Your task to perform on an android device: Clear all items from cart on amazon.com. Search for razer blade on amazon.com, select the first entry, and add it to the cart. Image 0: 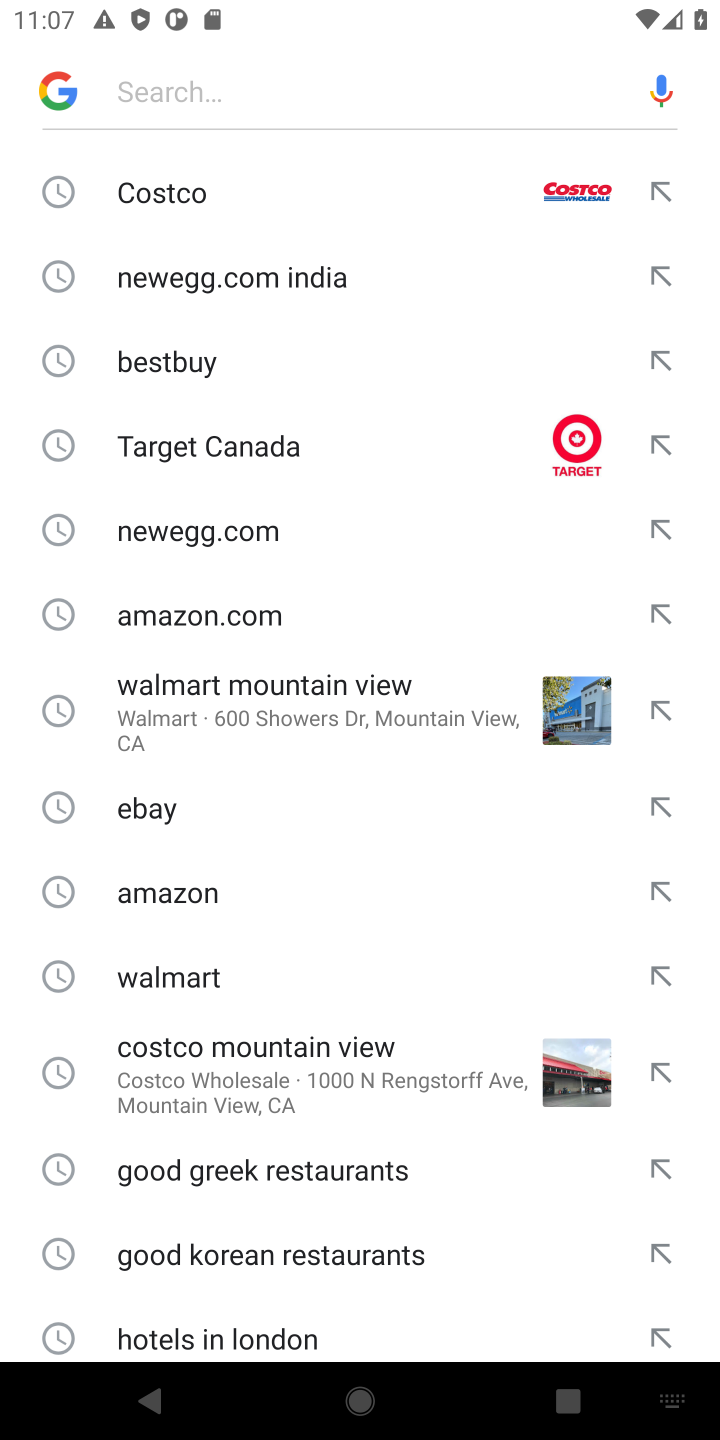
Step 0: press home button
Your task to perform on an android device: Clear all items from cart on amazon.com. Search for razer blade on amazon.com, select the first entry, and add it to the cart. Image 1: 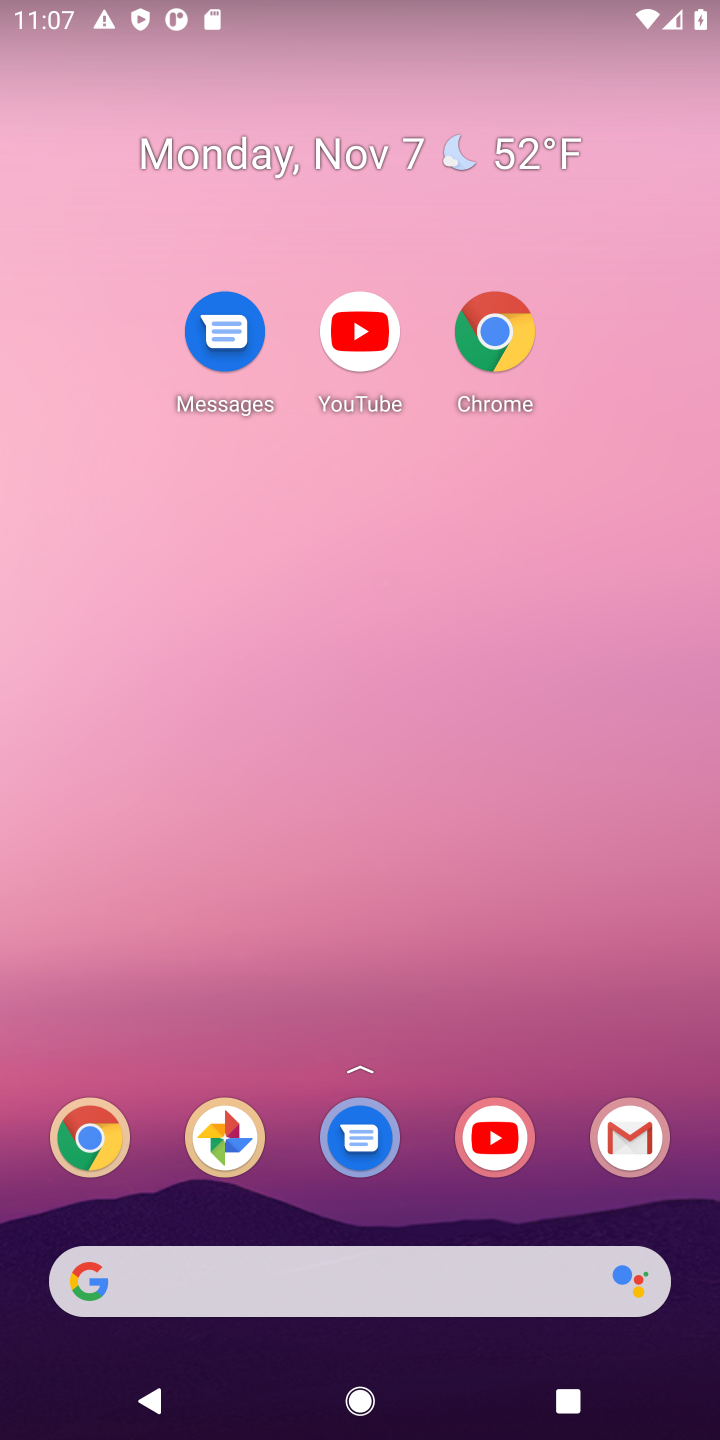
Step 1: drag from (377, 1069) to (416, 182)
Your task to perform on an android device: Clear all items from cart on amazon.com. Search for razer blade on amazon.com, select the first entry, and add it to the cart. Image 2: 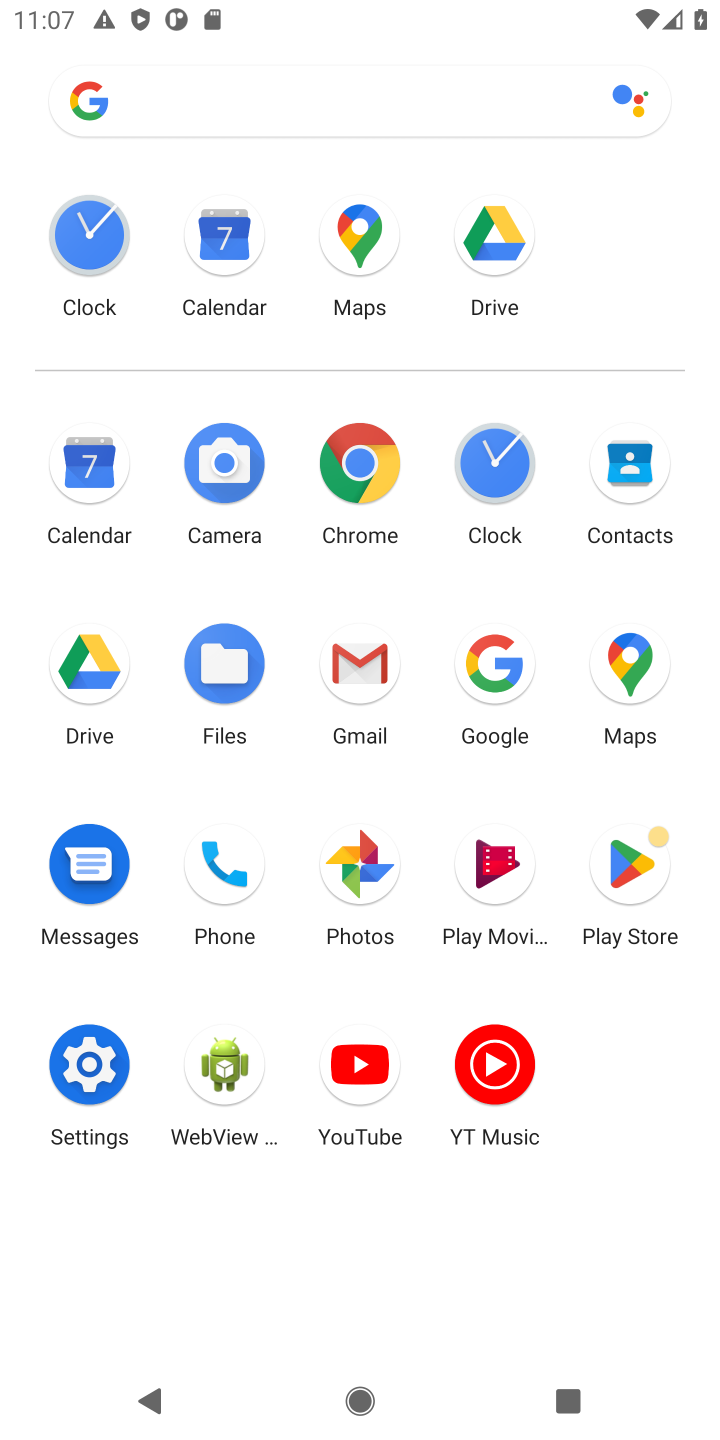
Step 2: click (364, 465)
Your task to perform on an android device: Clear all items from cart on amazon.com. Search for razer blade on amazon.com, select the first entry, and add it to the cart. Image 3: 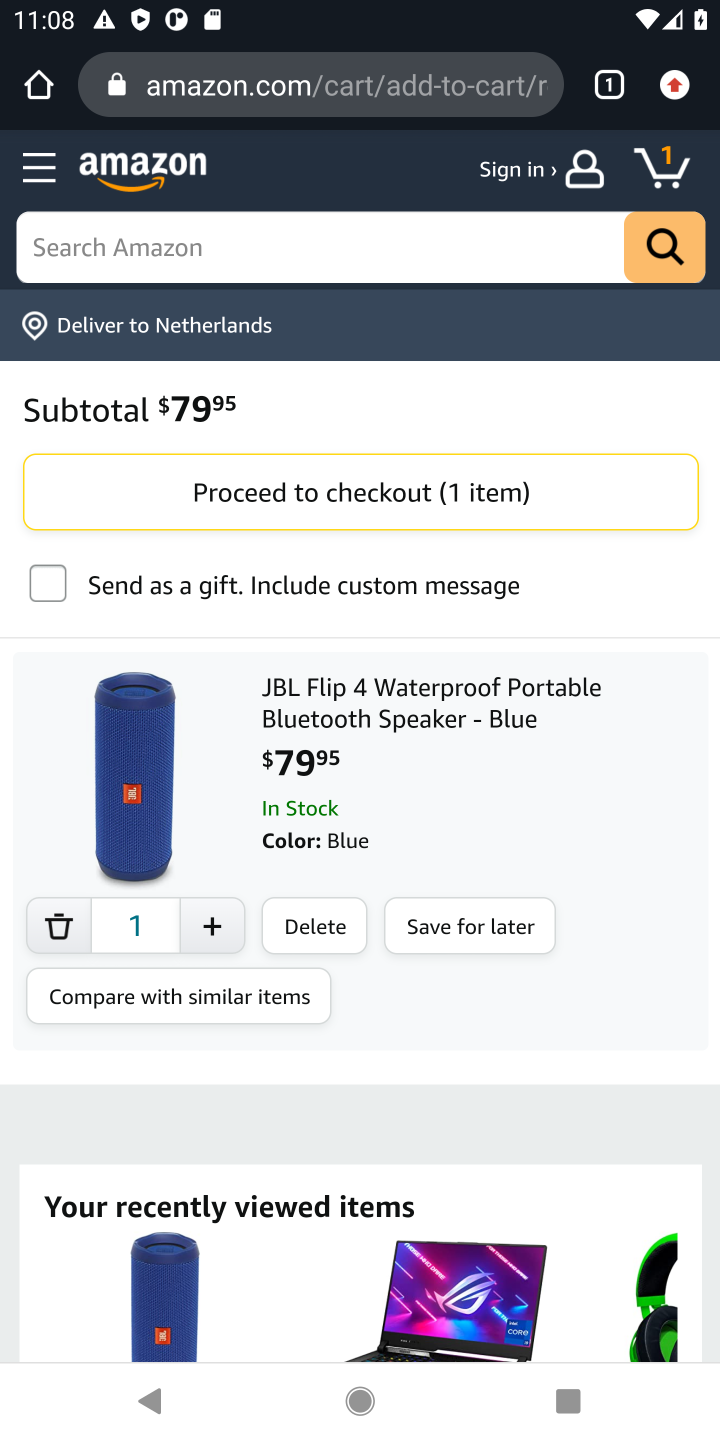
Step 3: click (669, 166)
Your task to perform on an android device: Clear all items from cart on amazon.com. Search for razer blade on amazon.com, select the first entry, and add it to the cart. Image 4: 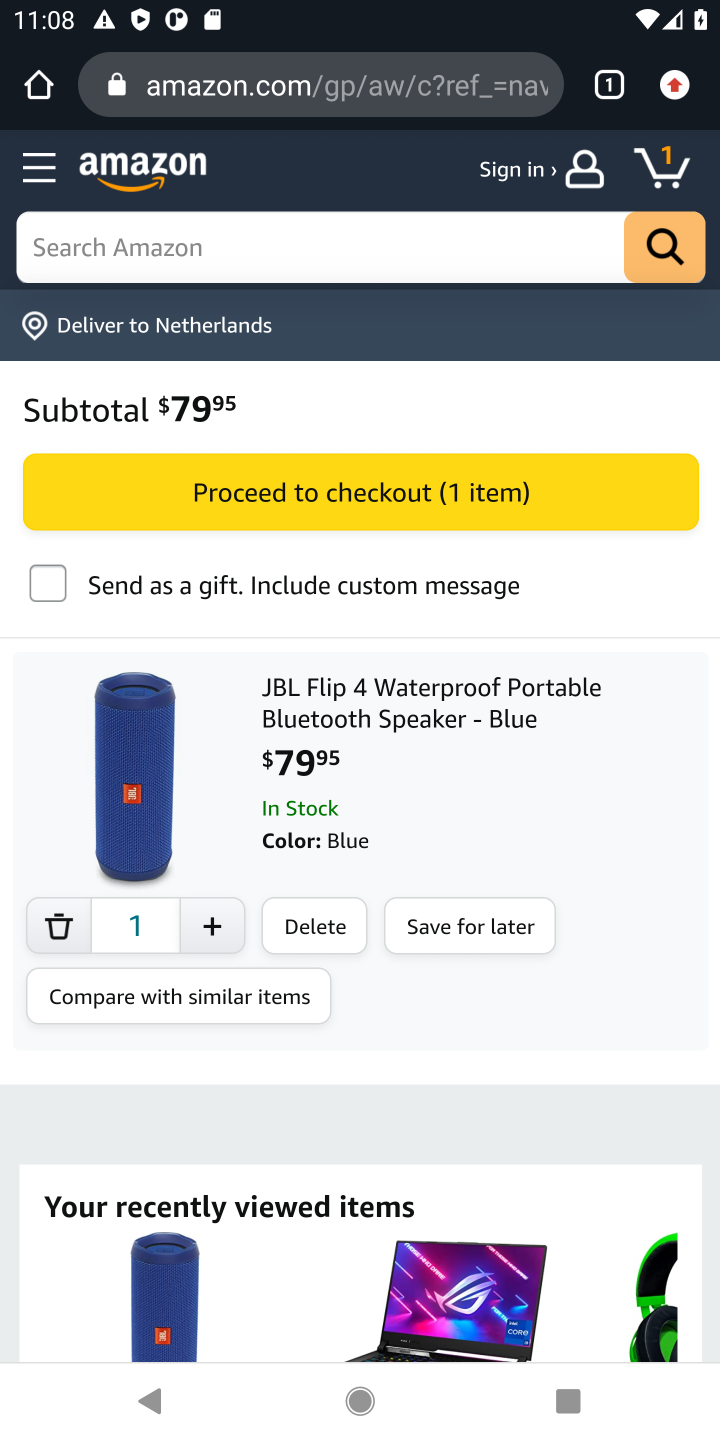
Step 4: click (677, 161)
Your task to perform on an android device: Clear all items from cart on amazon.com. Search for razer blade on amazon.com, select the first entry, and add it to the cart. Image 5: 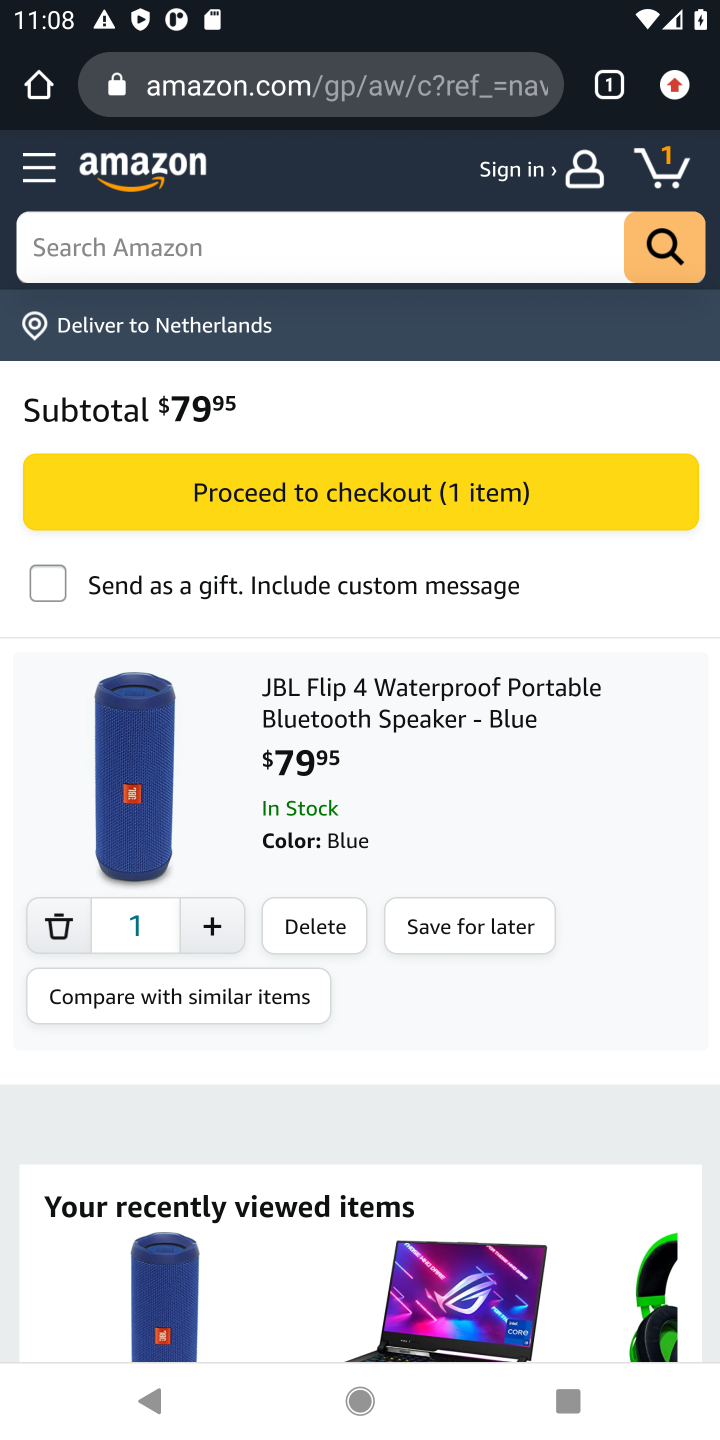
Step 5: click (310, 914)
Your task to perform on an android device: Clear all items from cart on amazon.com. Search for razer blade on amazon.com, select the first entry, and add it to the cart. Image 6: 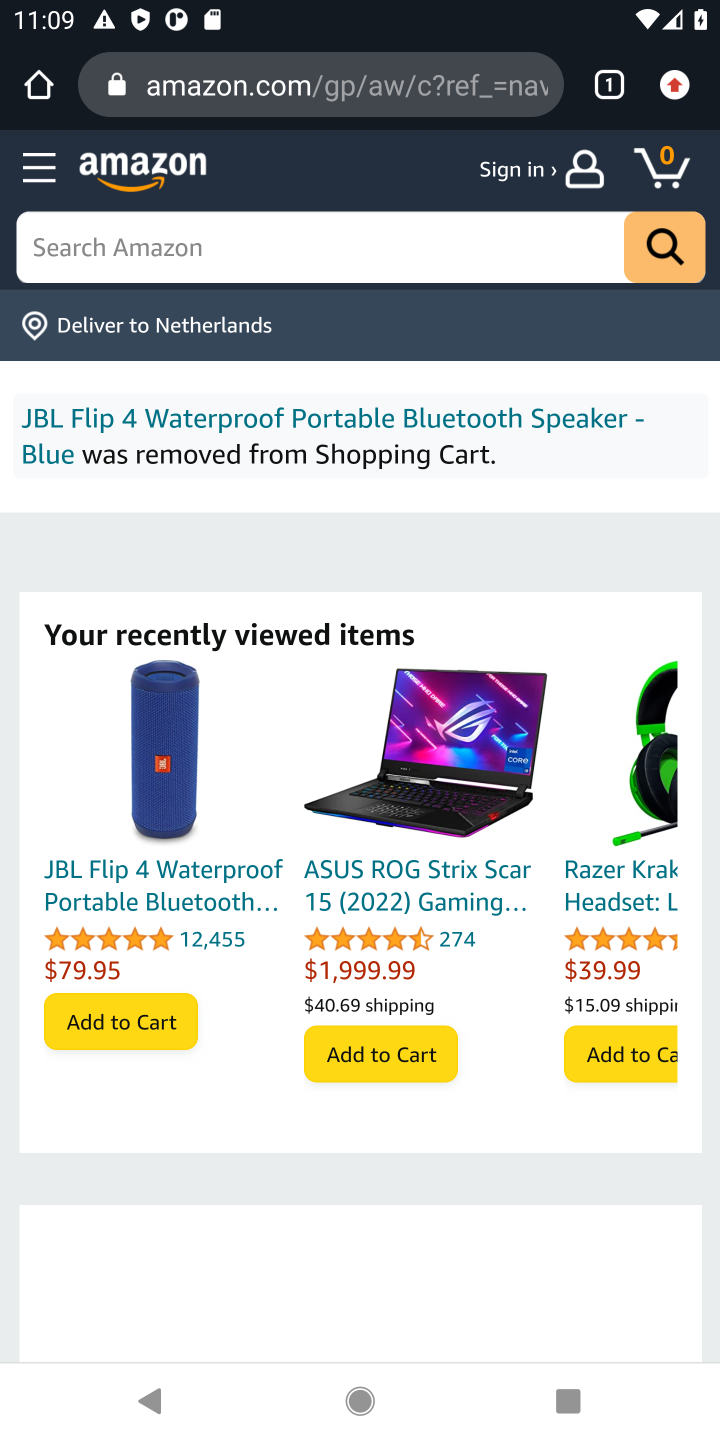
Step 6: click (298, 257)
Your task to perform on an android device: Clear all items from cart on amazon.com. Search for razer blade on amazon.com, select the first entry, and add it to the cart. Image 7: 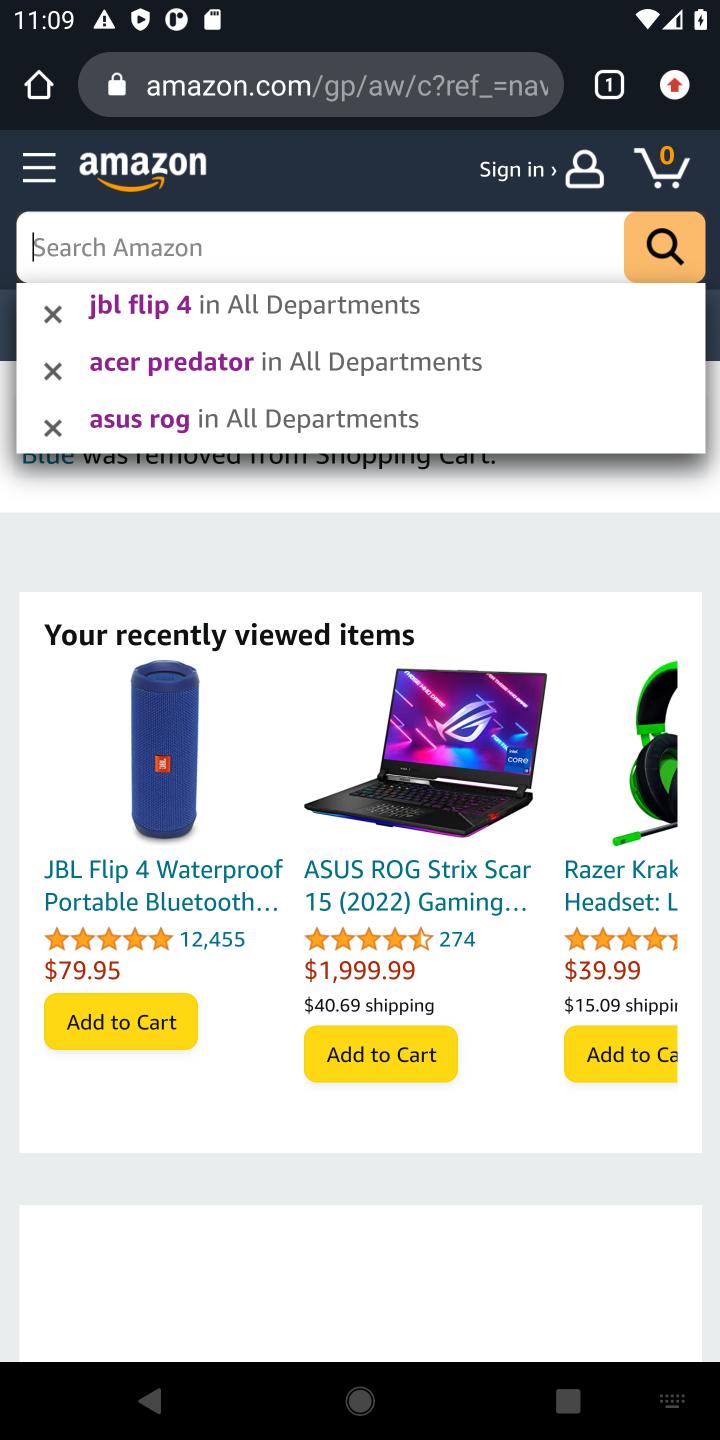
Step 7: press enter
Your task to perform on an android device: Clear all items from cart on amazon.com. Search for razer blade on amazon.com, select the first entry, and add it to the cart. Image 8: 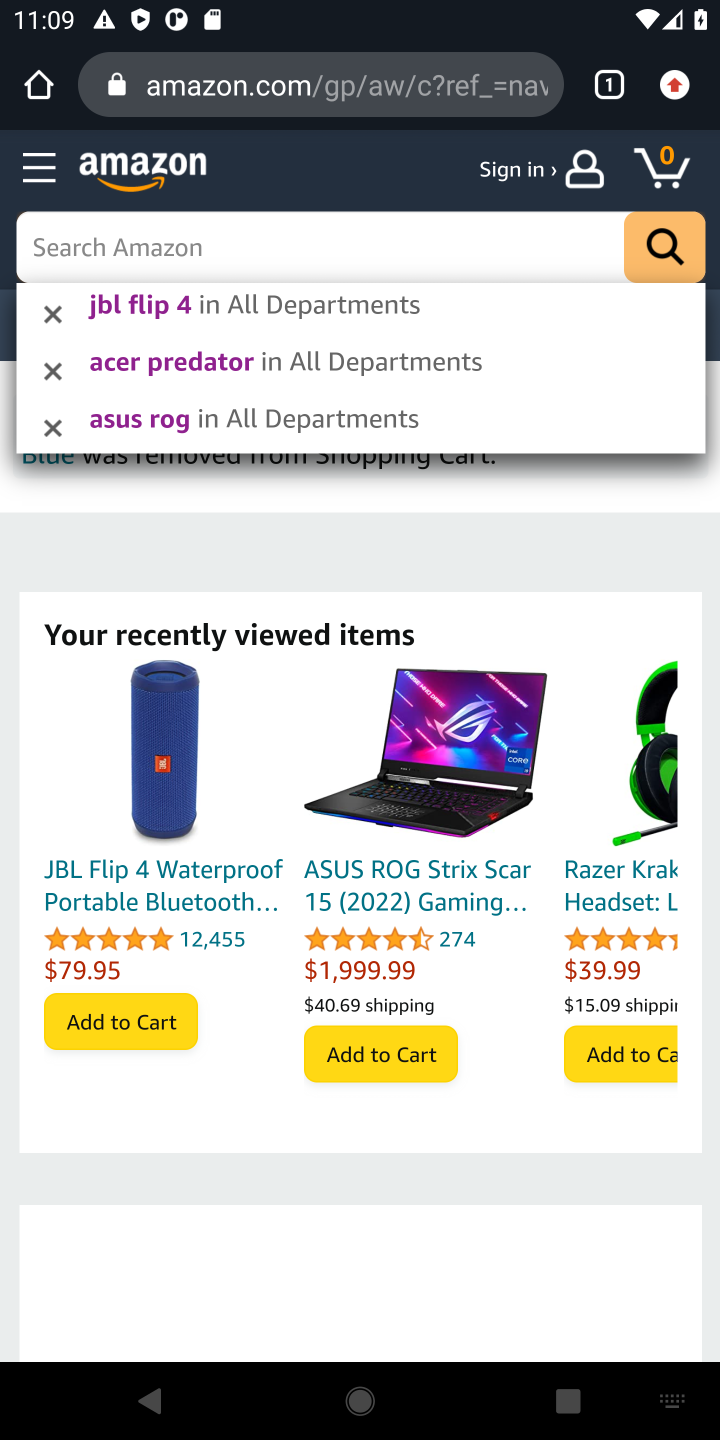
Step 8: type "razer blade"
Your task to perform on an android device: Clear all items from cart on amazon.com. Search for razer blade on amazon.com, select the first entry, and add it to the cart. Image 9: 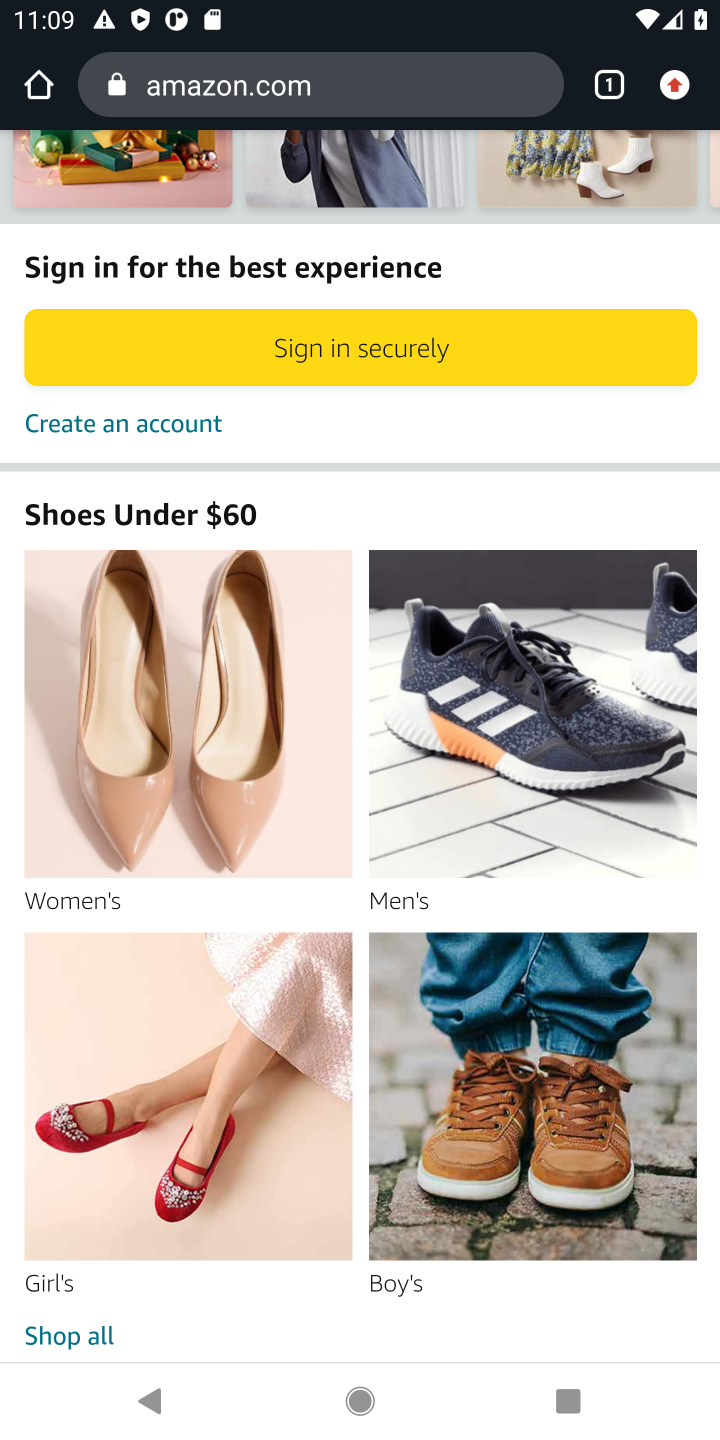
Step 9: press enter
Your task to perform on an android device: Clear all items from cart on amazon.com. Search for razer blade on amazon.com, select the first entry, and add it to the cart. Image 10: 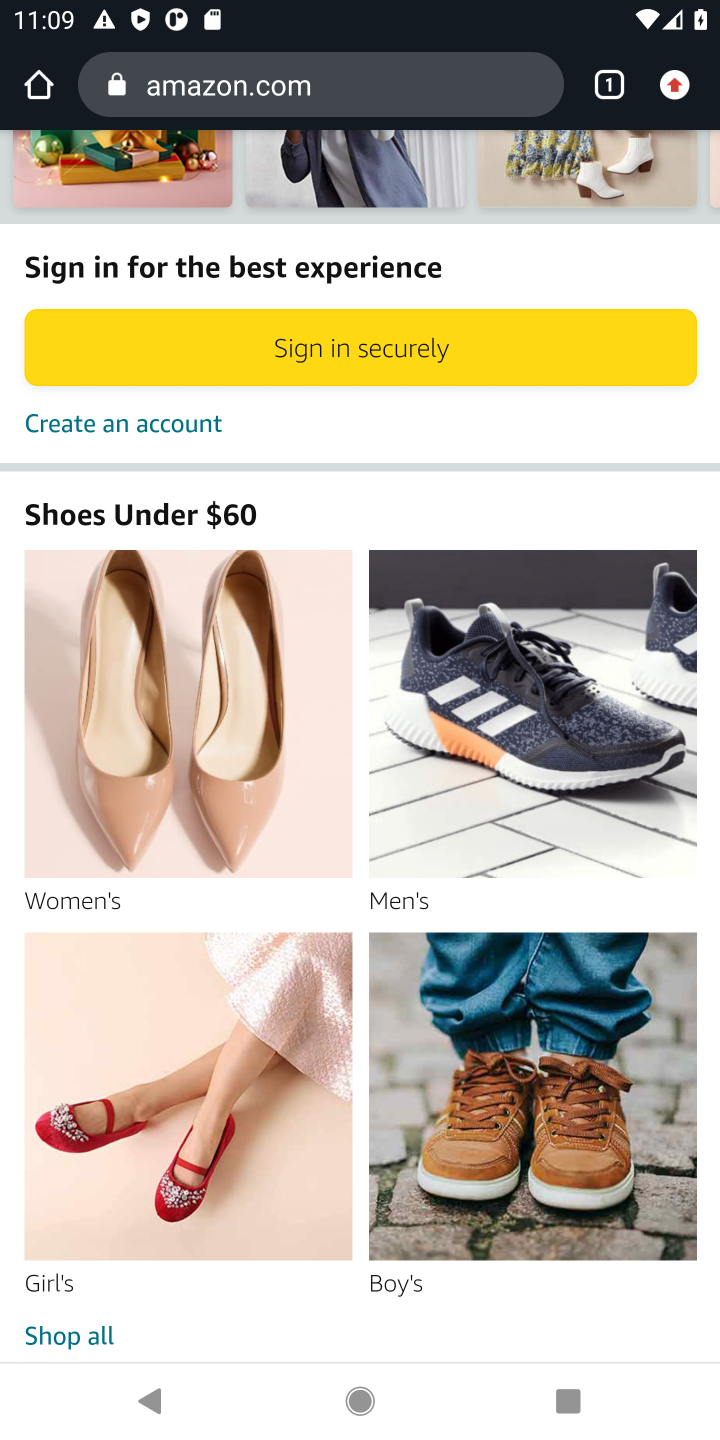
Step 10: drag from (481, 626) to (473, 1236)
Your task to perform on an android device: Clear all items from cart on amazon.com. Search for razer blade on amazon.com, select the first entry, and add it to the cart. Image 11: 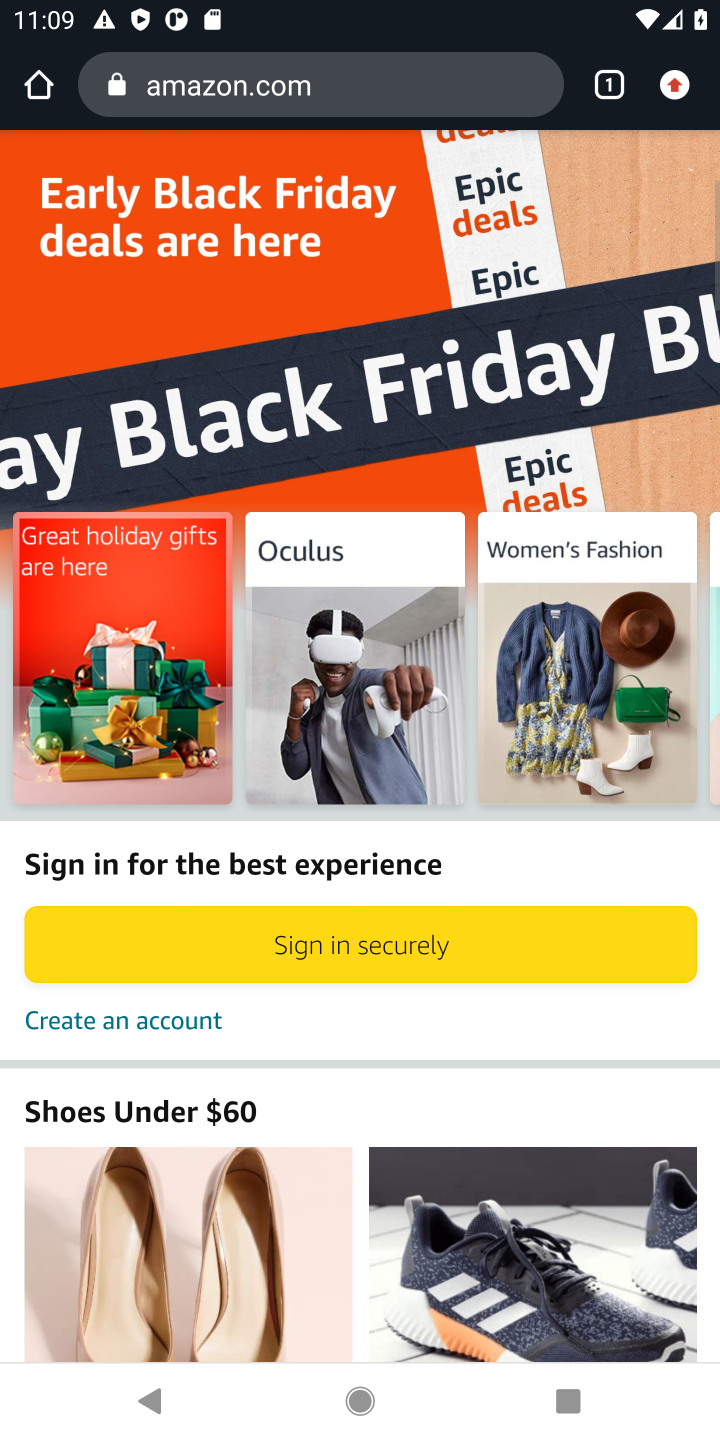
Step 11: drag from (412, 499) to (400, 1143)
Your task to perform on an android device: Clear all items from cart on amazon.com. Search for razer blade on amazon.com, select the first entry, and add it to the cart. Image 12: 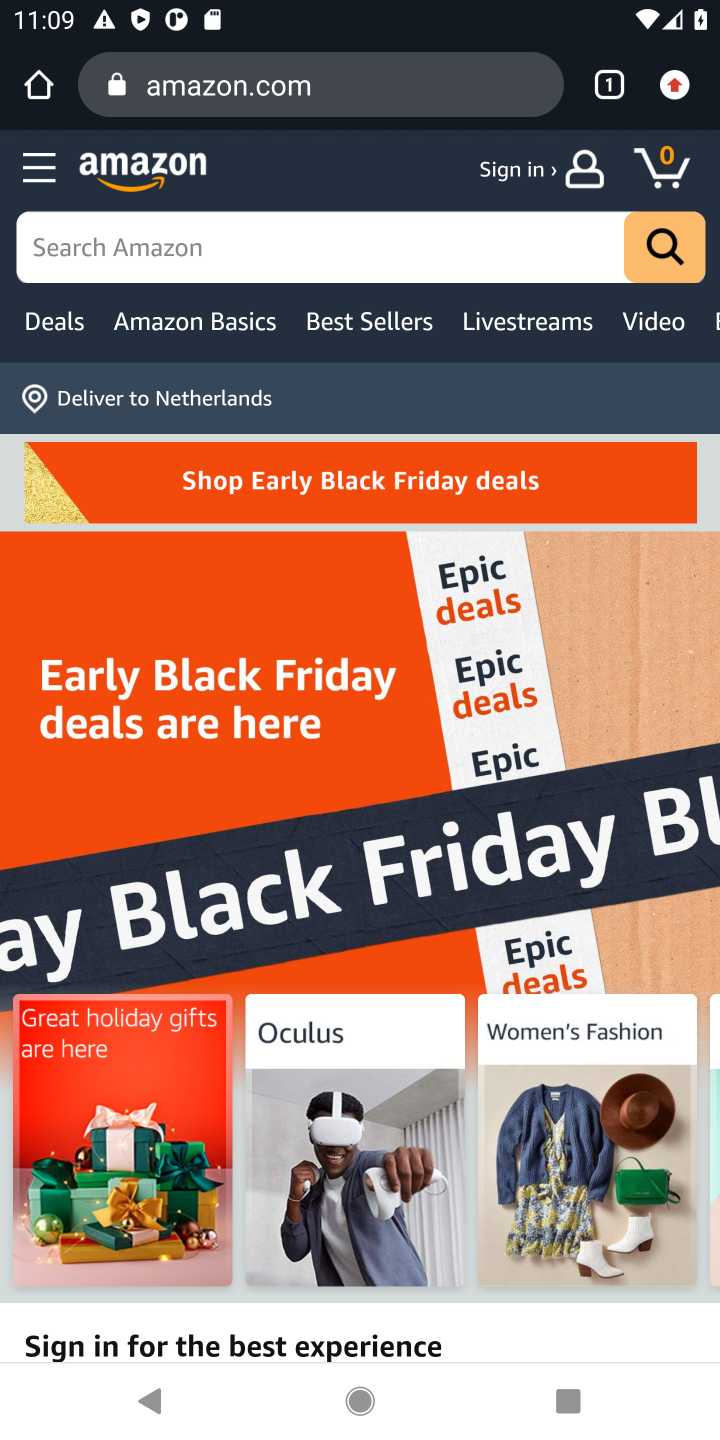
Step 12: click (413, 261)
Your task to perform on an android device: Clear all items from cart on amazon.com. Search for razer blade on amazon.com, select the first entry, and add it to the cart. Image 13: 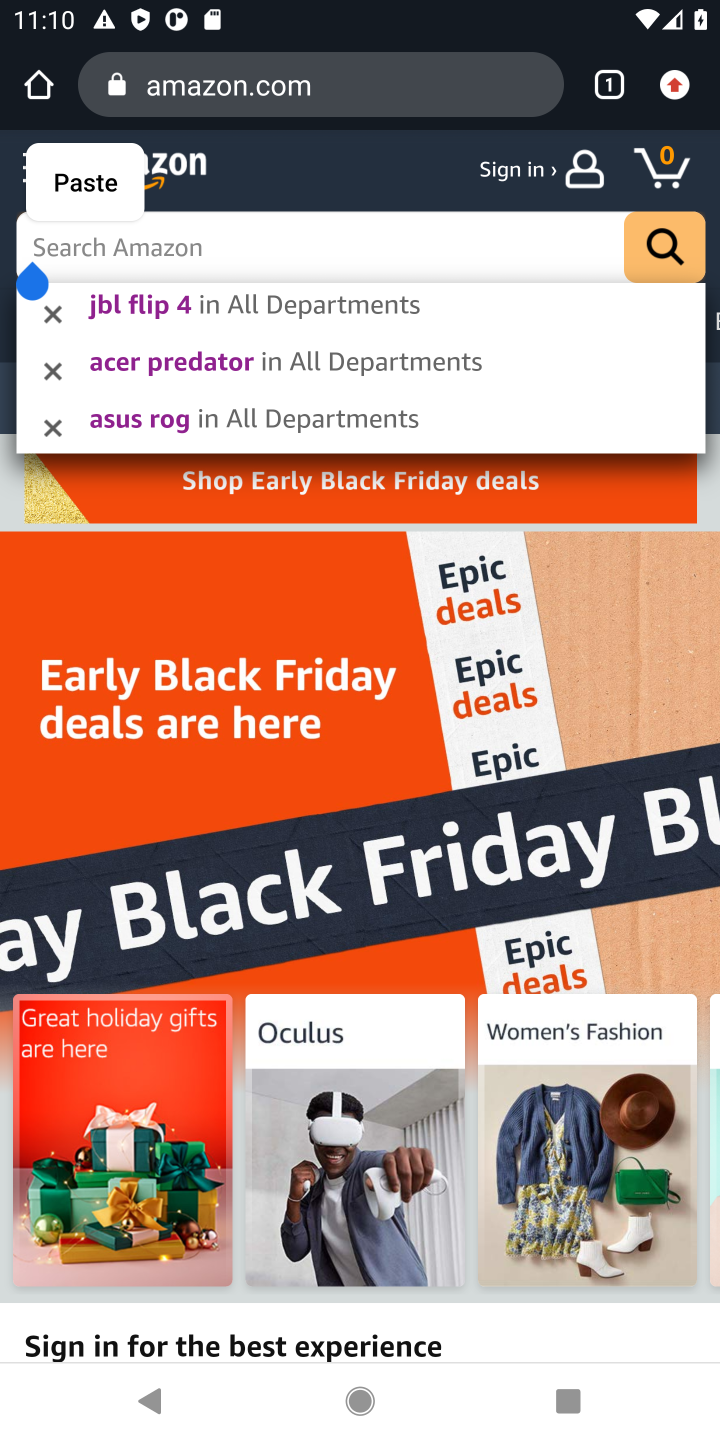
Step 13: type "razer blade"
Your task to perform on an android device: Clear all items from cart on amazon.com. Search for razer blade on amazon.com, select the first entry, and add it to the cart. Image 14: 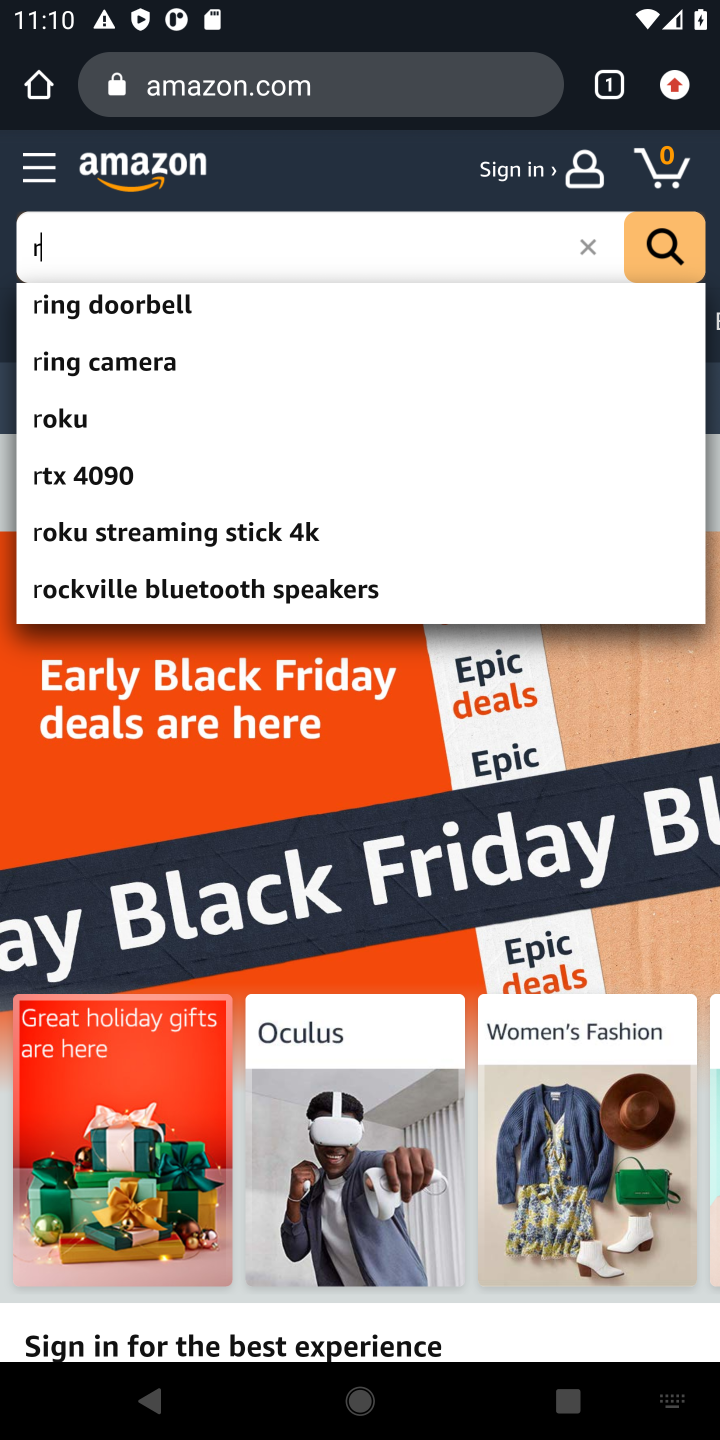
Step 14: press enter
Your task to perform on an android device: Clear all items from cart on amazon.com. Search for razer blade on amazon.com, select the first entry, and add it to the cart. Image 15: 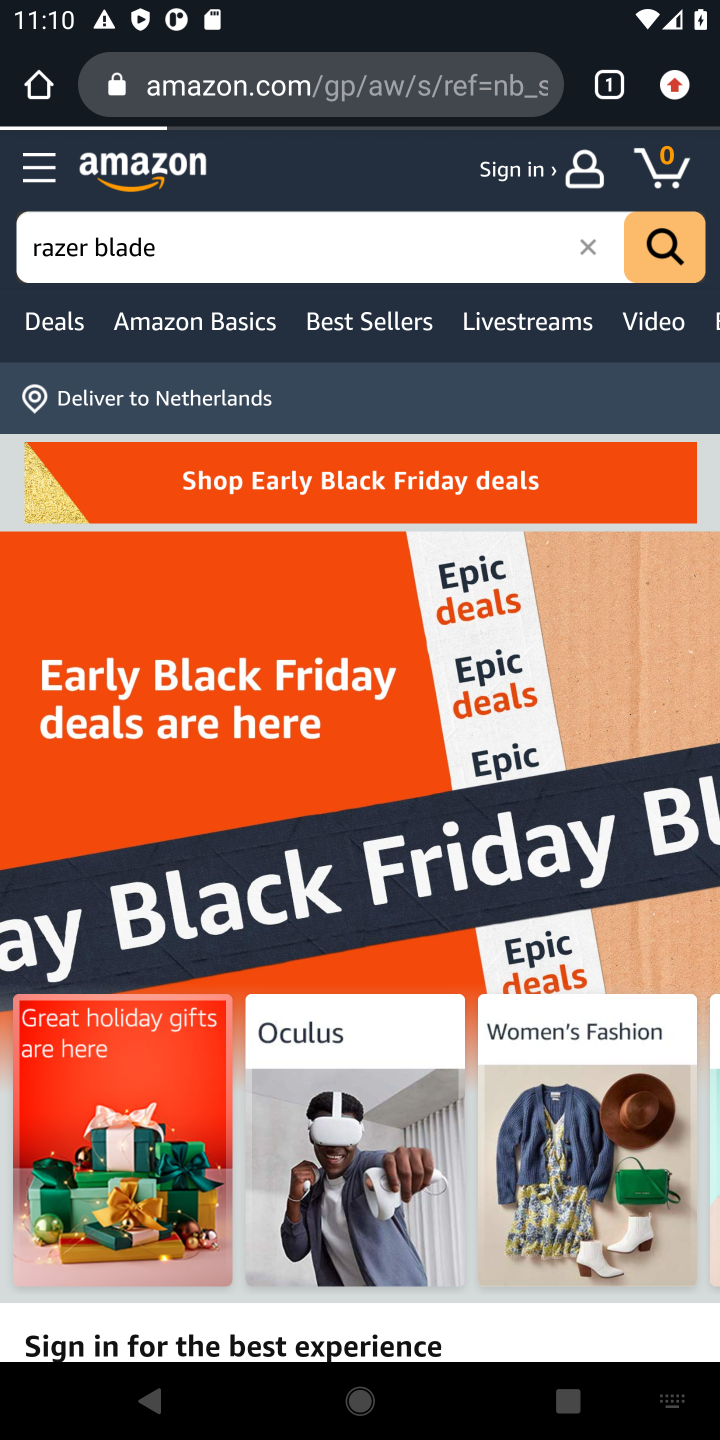
Step 15: click (671, 243)
Your task to perform on an android device: Clear all items from cart on amazon.com. Search for razer blade on amazon.com, select the first entry, and add it to the cart. Image 16: 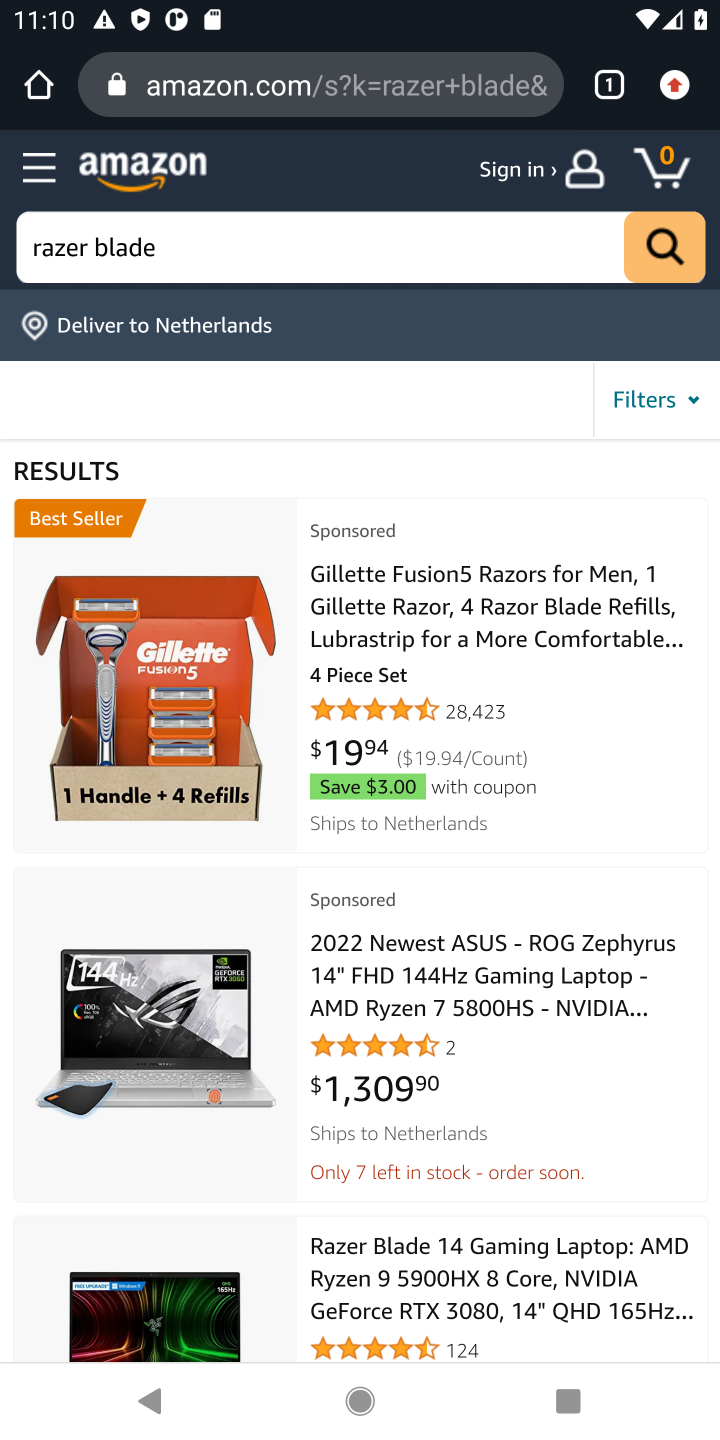
Step 16: click (505, 1288)
Your task to perform on an android device: Clear all items from cart on amazon.com. Search for razer blade on amazon.com, select the first entry, and add it to the cart. Image 17: 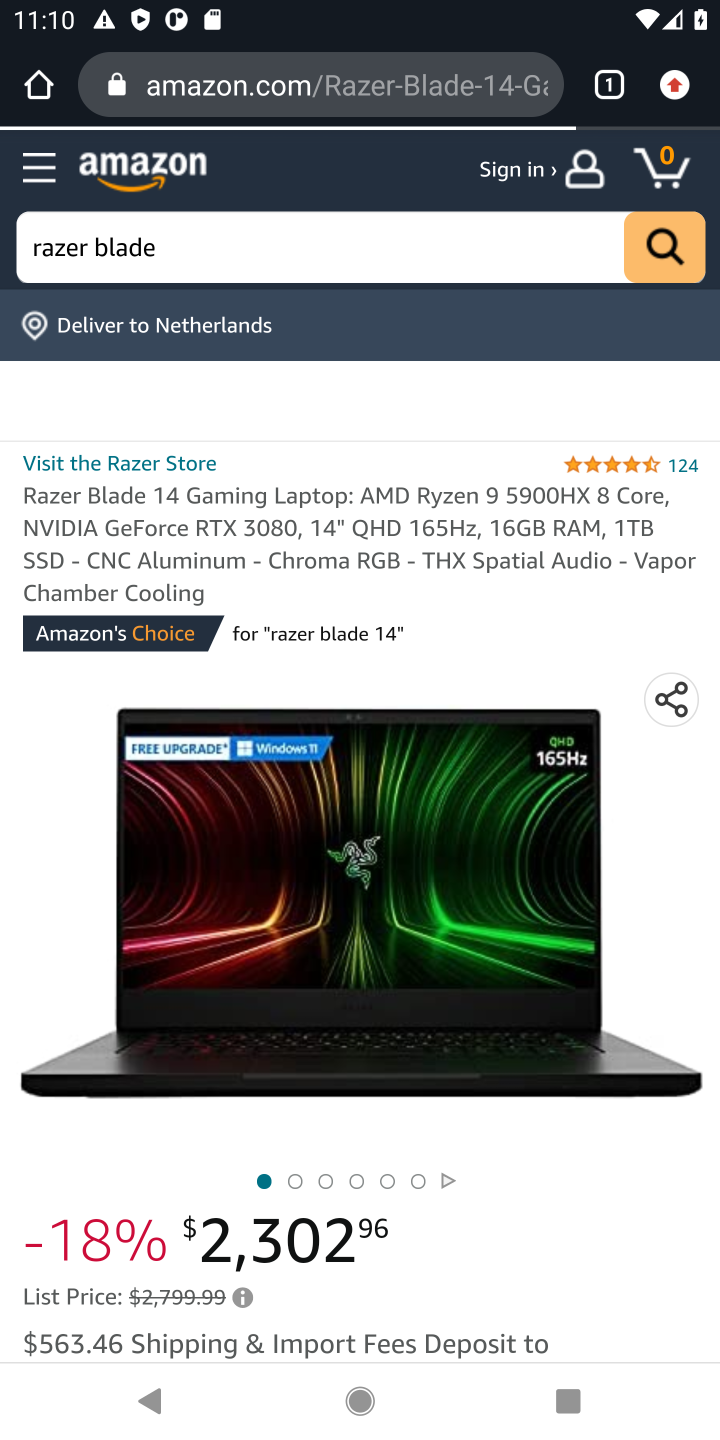
Step 17: drag from (418, 930) to (433, 415)
Your task to perform on an android device: Clear all items from cart on amazon.com. Search for razer blade on amazon.com, select the first entry, and add it to the cart. Image 18: 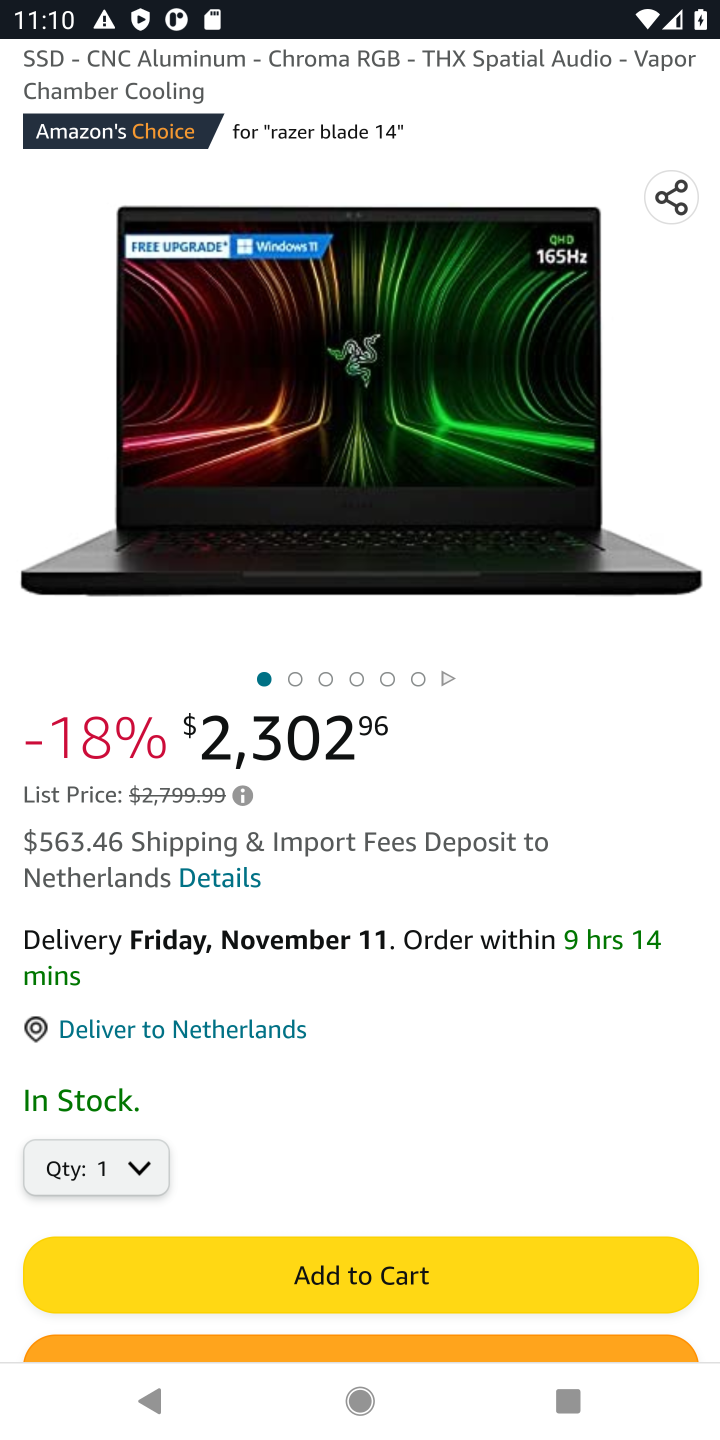
Step 18: click (476, 1264)
Your task to perform on an android device: Clear all items from cart on amazon.com. Search for razer blade on amazon.com, select the first entry, and add it to the cart. Image 19: 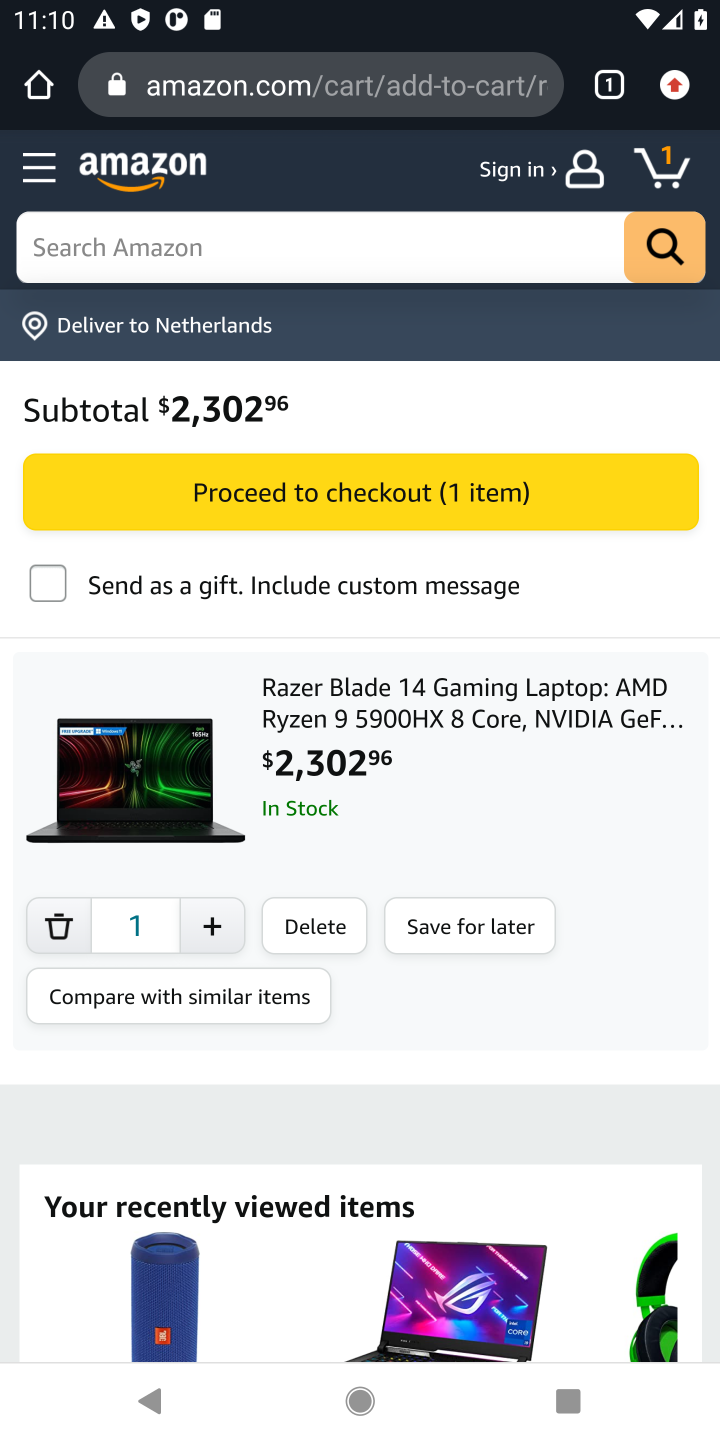
Step 19: task complete